Your task to perform on an android device: Open display settings Image 0: 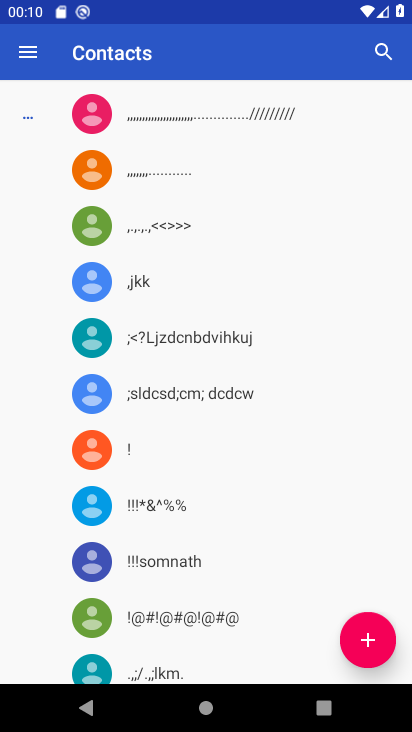
Step 0: press home button
Your task to perform on an android device: Open display settings Image 1: 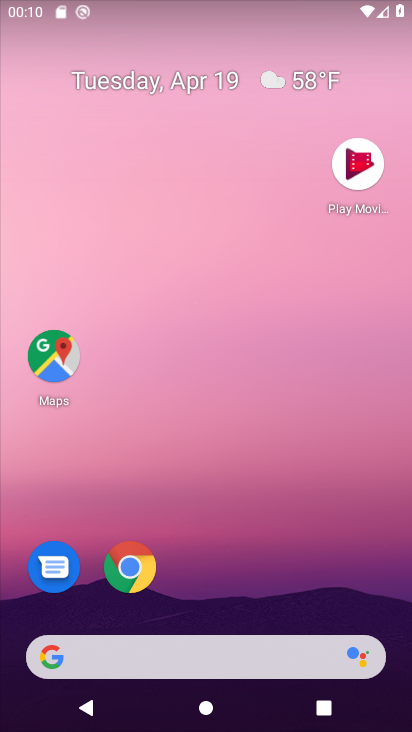
Step 1: drag from (237, 572) to (235, 214)
Your task to perform on an android device: Open display settings Image 2: 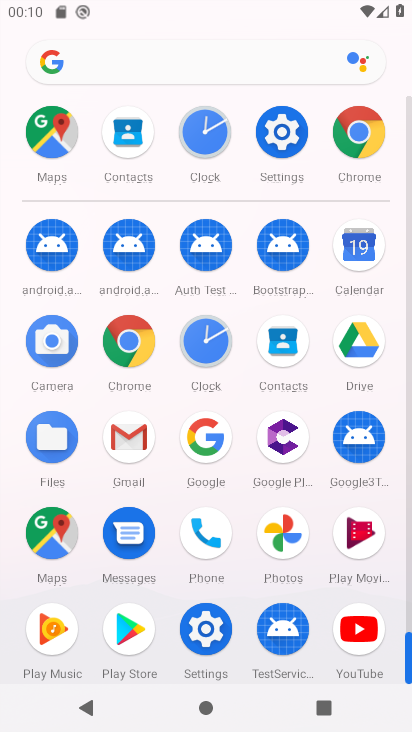
Step 2: drag from (255, 642) to (245, 229)
Your task to perform on an android device: Open display settings Image 3: 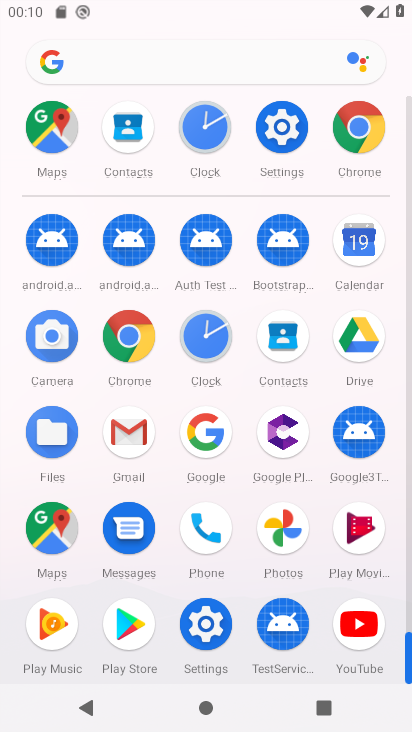
Step 3: drag from (162, 600) to (169, 185)
Your task to perform on an android device: Open display settings Image 4: 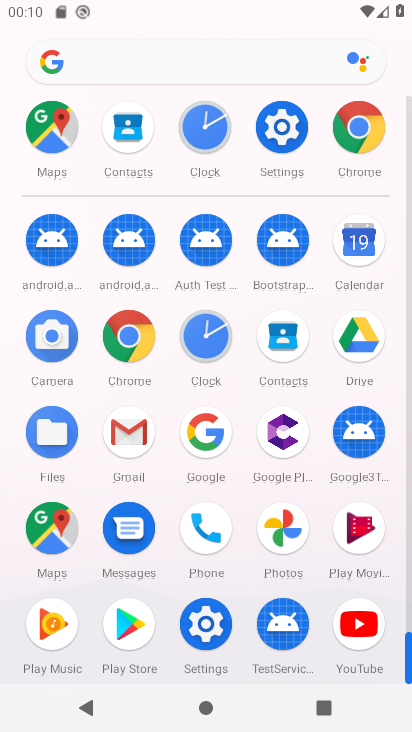
Step 4: drag from (160, 566) to (201, 99)
Your task to perform on an android device: Open display settings Image 5: 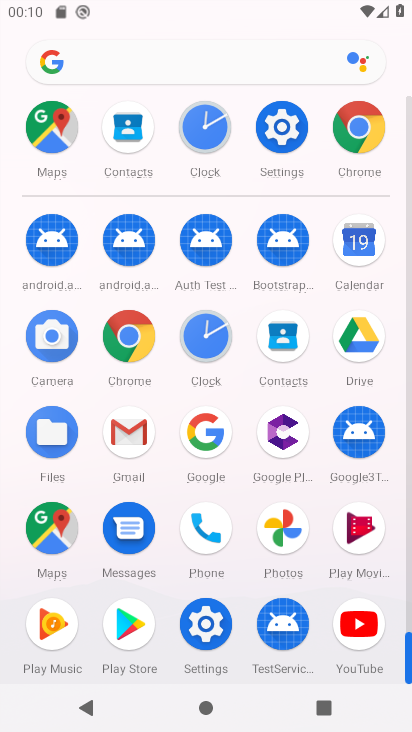
Step 5: drag from (239, 581) to (344, 240)
Your task to perform on an android device: Open display settings Image 6: 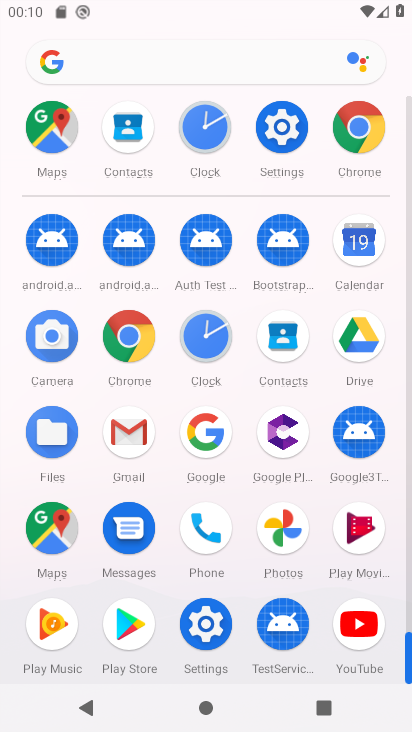
Step 6: drag from (231, 585) to (274, 397)
Your task to perform on an android device: Open display settings Image 7: 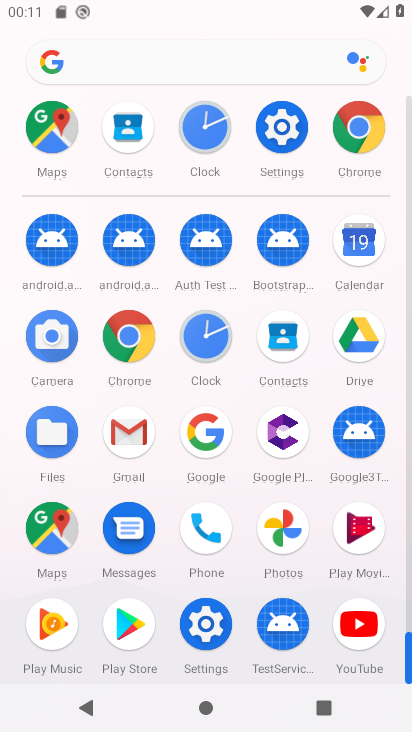
Step 7: click (203, 634)
Your task to perform on an android device: Open display settings Image 8: 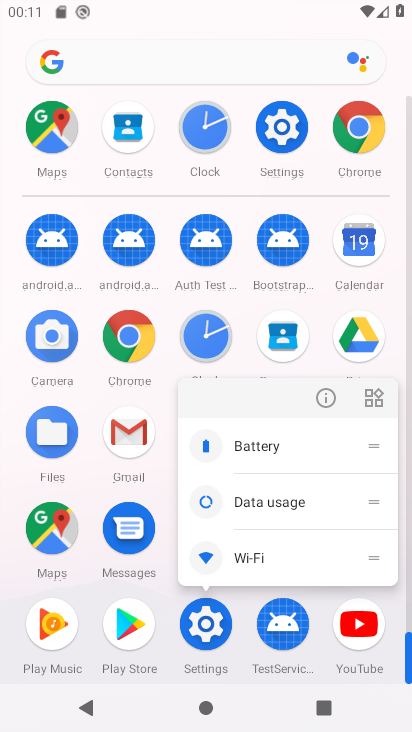
Step 8: click (322, 397)
Your task to perform on an android device: Open display settings Image 9: 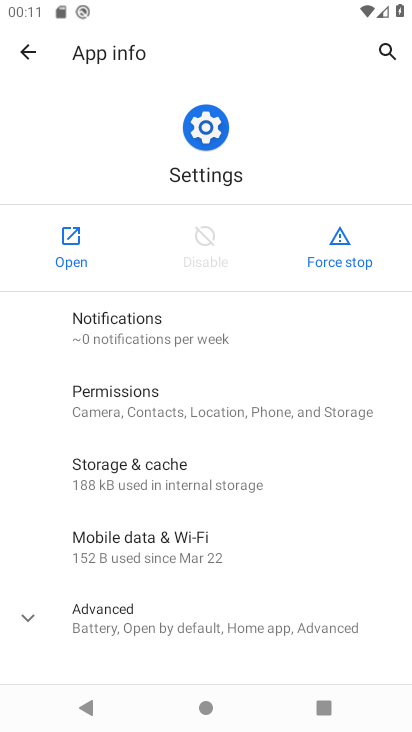
Step 9: drag from (145, 543) to (305, 8)
Your task to perform on an android device: Open display settings Image 10: 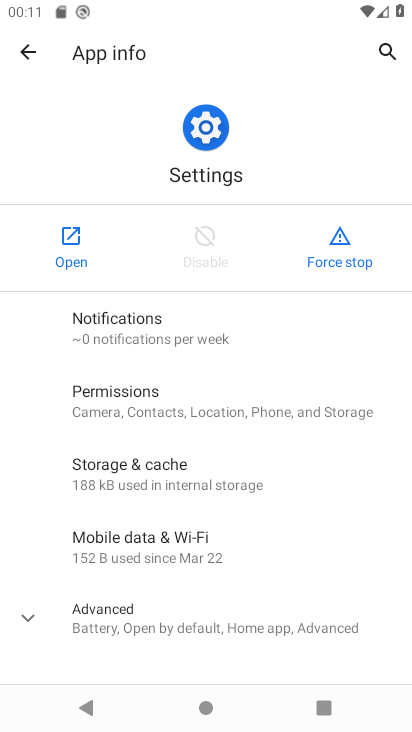
Step 10: drag from (216, 181) to (173, 436)
Your task to perform on an android device: Open display settings Image 11: 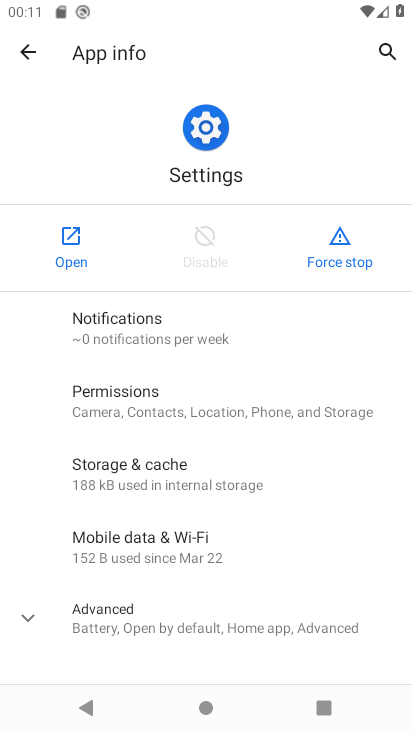
Step 11: click (76, 247)
Your task to perform on an android device: Open display settings Image 12: 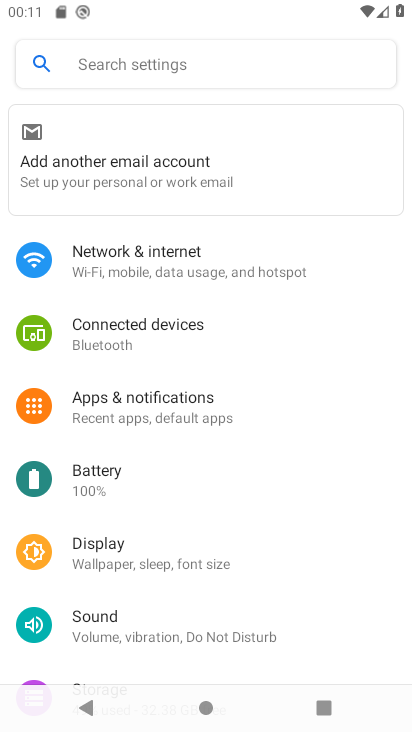
Step 12: drag from (208, 573) to (257, 81)
Your task to perform on an android device: Open display settings Image 13: 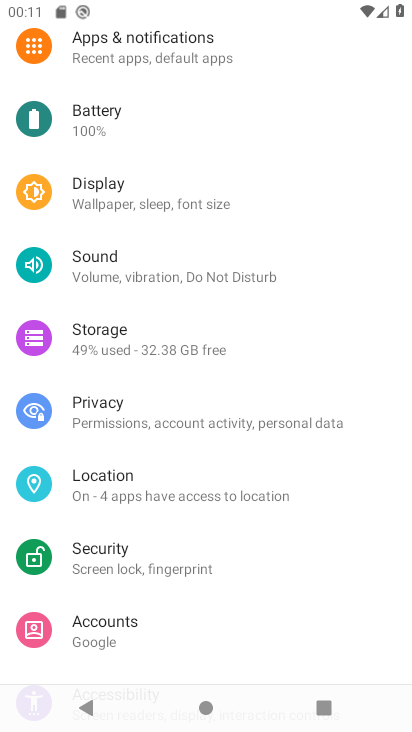
Step 13: click (144, 192)
Your task to perform on an android device: Open display settings Image 14: 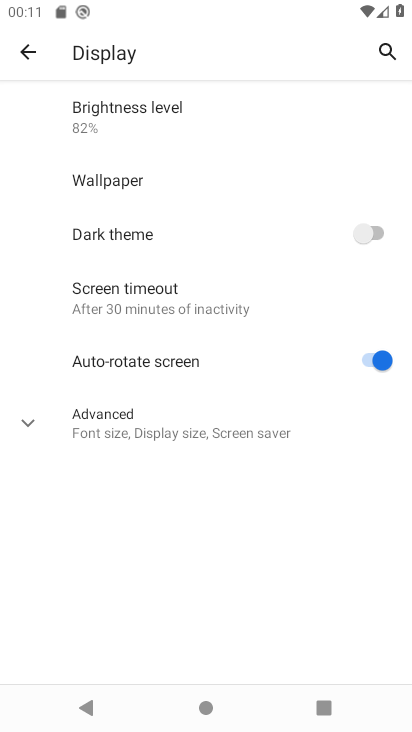
Step 14: task complete